Your task to perform on an android device: move an email to a new category in the gmail app Image 0: 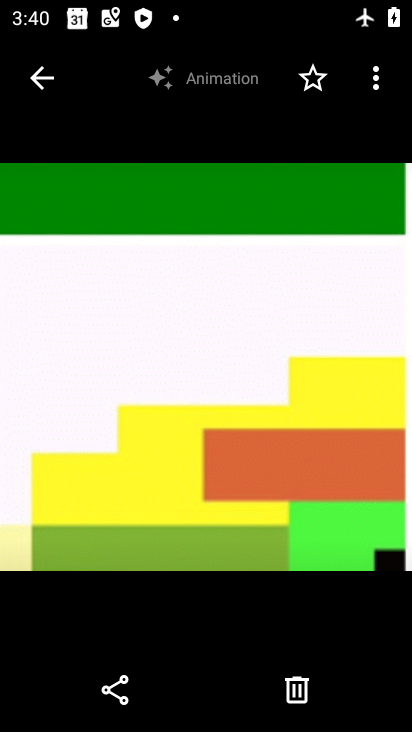
Step 0: press home button
Your task to perform on an android device: move an email to a new category in the gmail app Image 1: 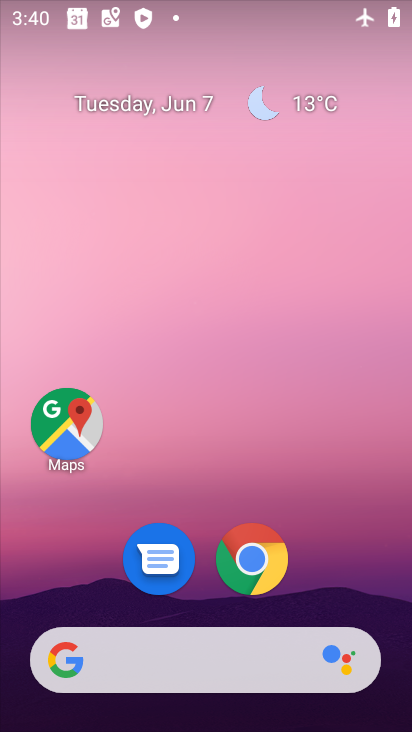
Step 1: drag from (348, 584) to (191, 56)
Your task to perform on an android device: move an email to a new category in the gmail app Image 2: 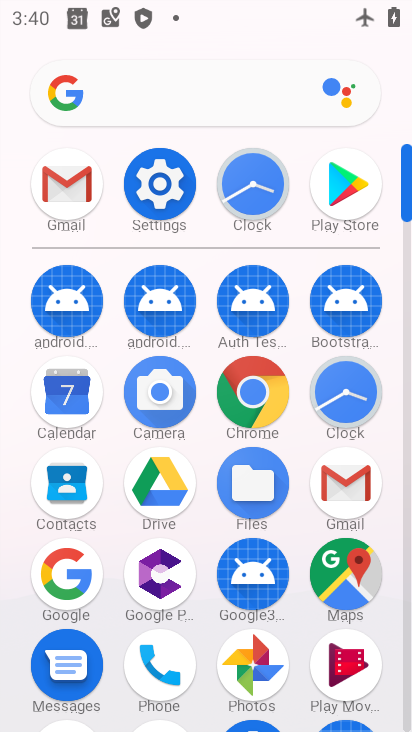
Step 2: click (62, 187)
Your task to perform on an android device: move an email to a new category in the gmail app Image 3: 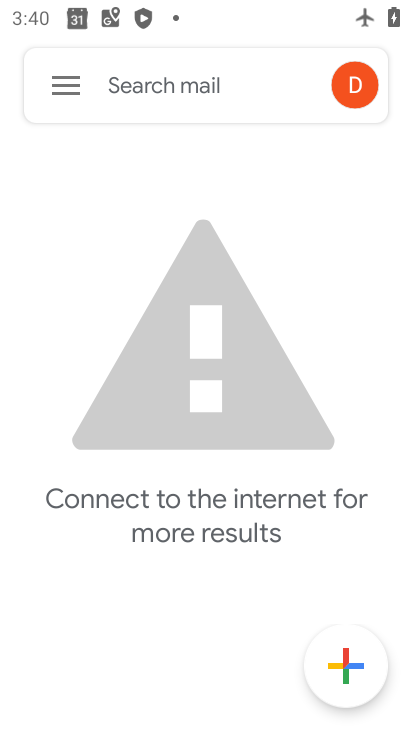
Step 3: click (62, 83)
Your task to perform on an android device: move an email to a new category in the gmail app Image 4: 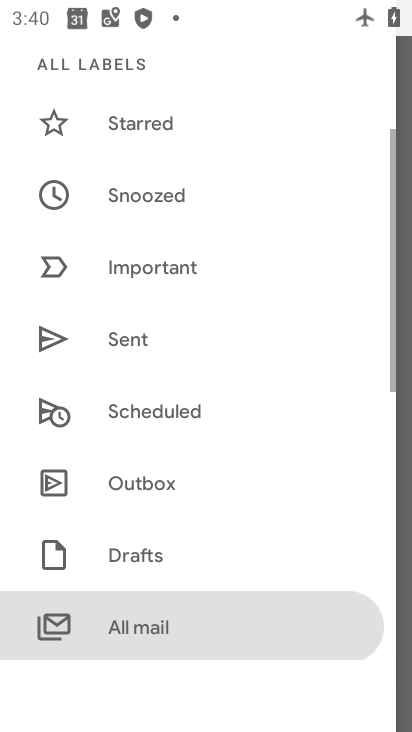
Step 4: drag from (152, 188) to (146, 383)
Your task to perform on an android device: move an email to a new category in the gmail app Image 5: 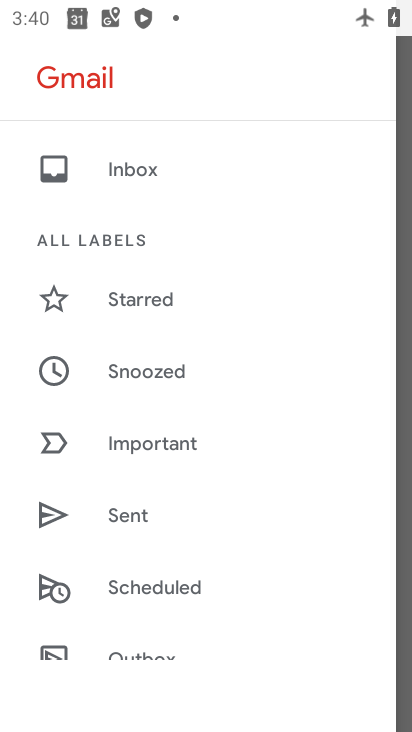
Step 5: click (155, 161)
Your task to perform on an android device: move an email to a new category in the gmail app Image 6: 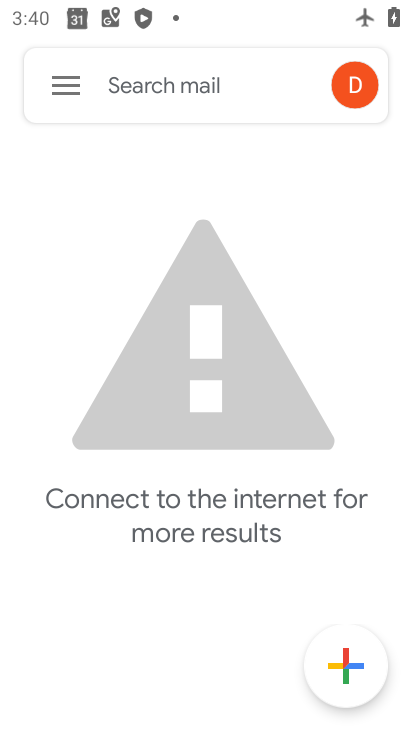
Step 6: task complete